Your task to perform on an android device: Check the weather Image 0: 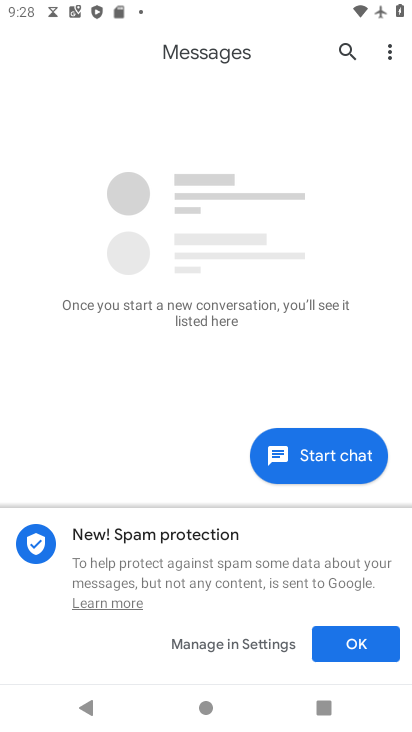
Step 0: press home button
Your task to perform on an android device: Check the weather Image 1: 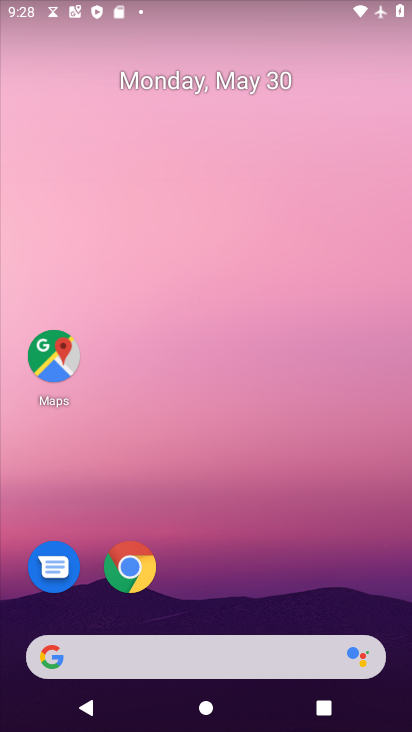
Step 1: click (158, 643)
Your task to perform on an android device: Check the weather Image 2: 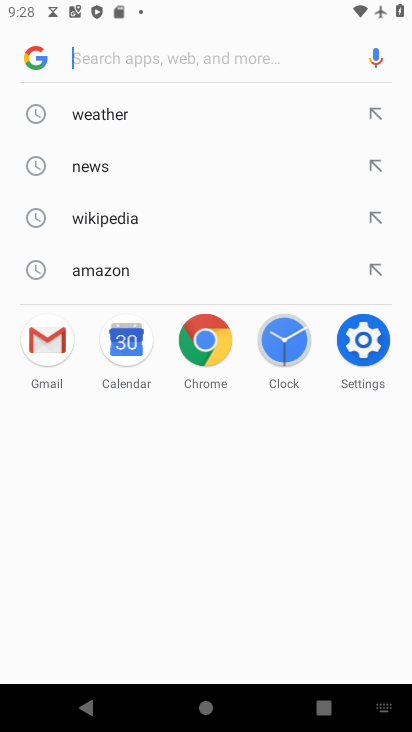
Step 2: click (115, 115)
Your task to perform on an android device: Check the weather Image 3: 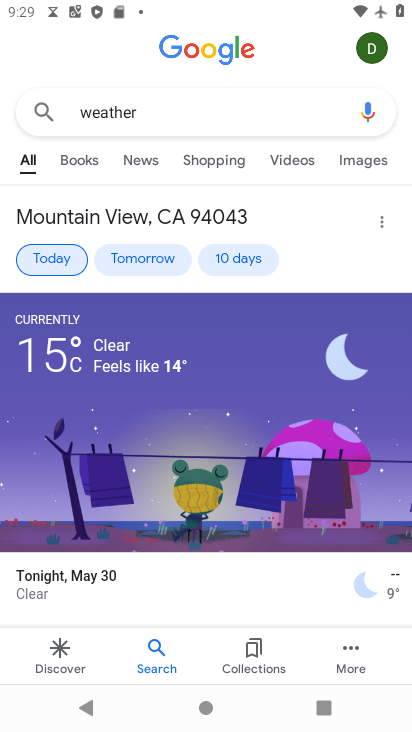
Step 3: task complete